Your task to perform on an android device: Go to settings Image 0: 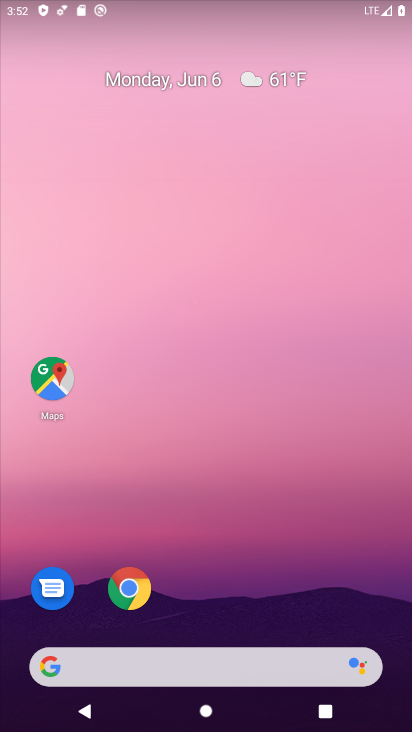
Step 0: click (186, 192)
Your task to perform on an android device: Go to settings Image 1: 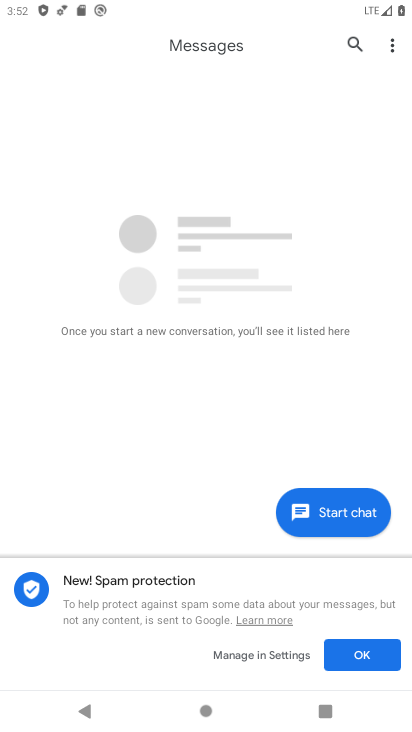
Step 1: press back button
Your task to perform on an android device: Go to settings Image 2: 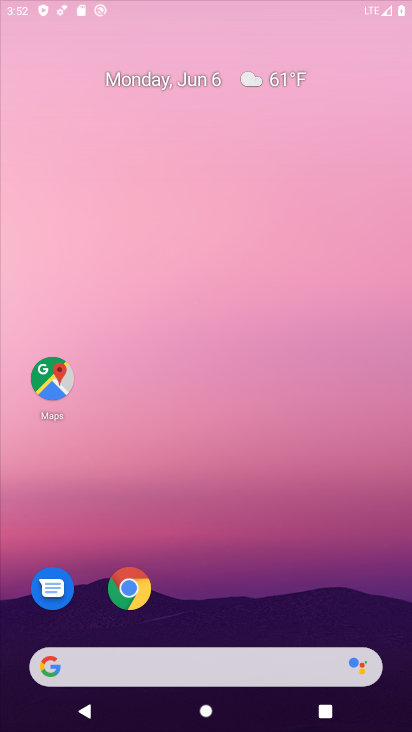
Step 2: drag from (270, 673) to (227, 21)
Your task to perform on an android device: Go to settings Image 3: 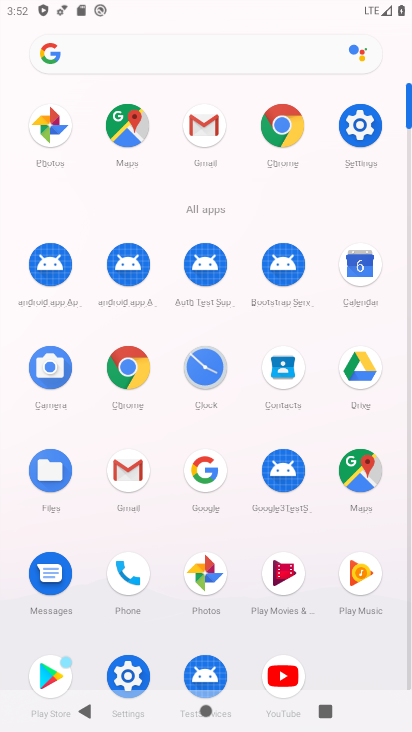
Step 3: click (357, 129)
Your task to perform on an android device: Go to settings Image 4: 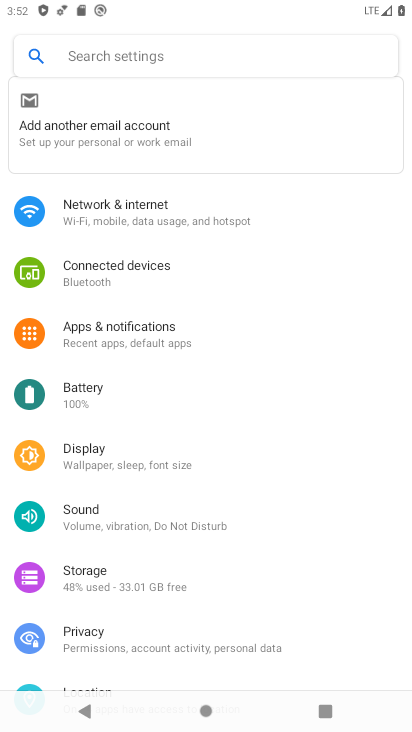
Step 4: press back button
Your task to perform on an android device: Go to settings Image 5: 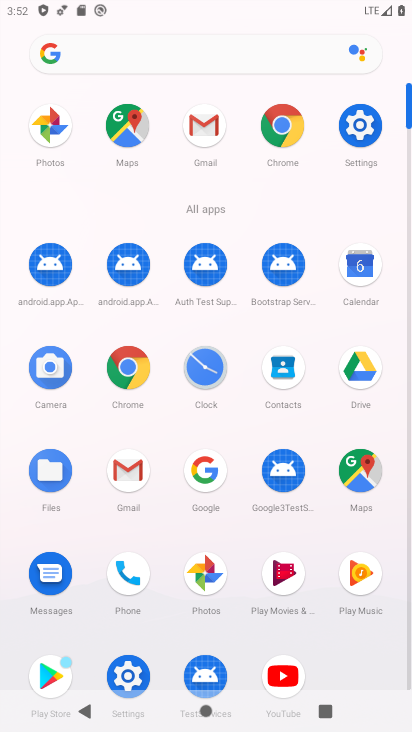
Step 5: press home button
Your task to perform on an android device: Go to settings Image 6: 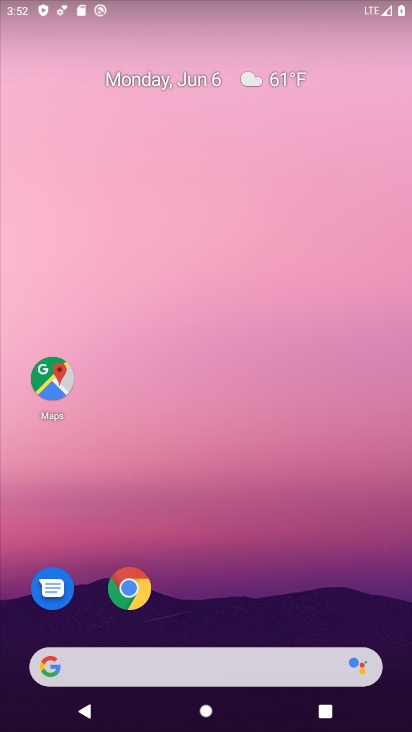
Step 6: drag from (365, 674) to (217, 0)
Your task to perform on an android device: Go to settings Image 7: 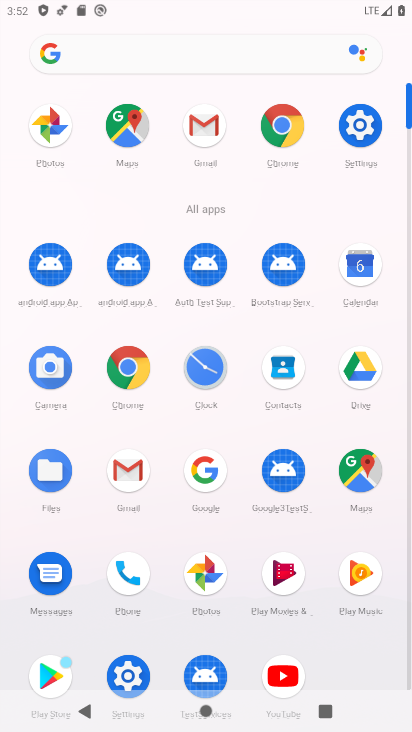
Step 7: click (370, 130)
Your task to perform on an android device: Go to settings Image 8: 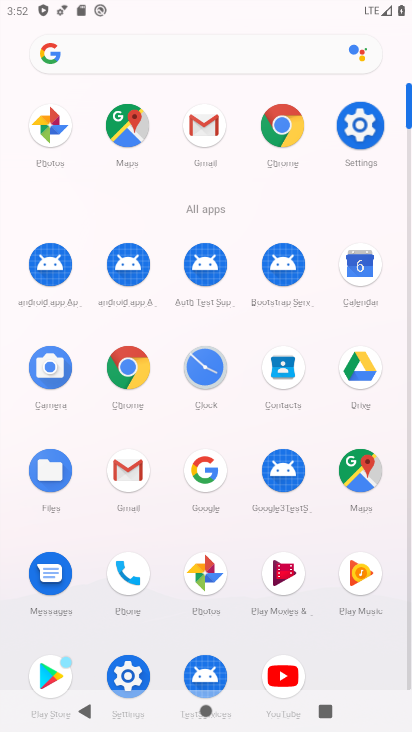
Step 8: click (365, 129)
Your task to perform on an android device: Go to settings Image 9: 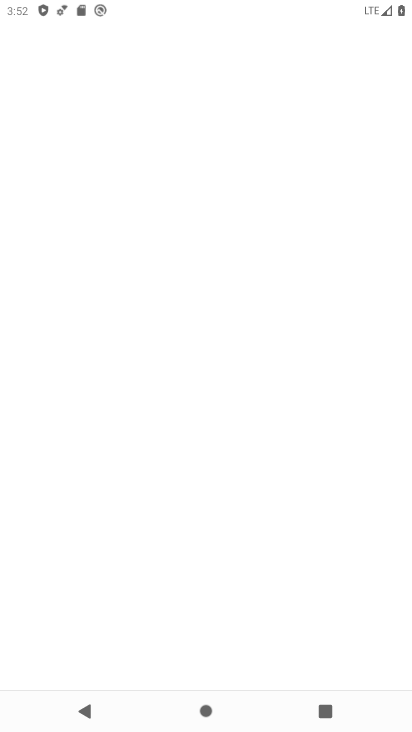
Step 9: click (364, 129)
Your task to perform on an android device: Go to settings Image 10: 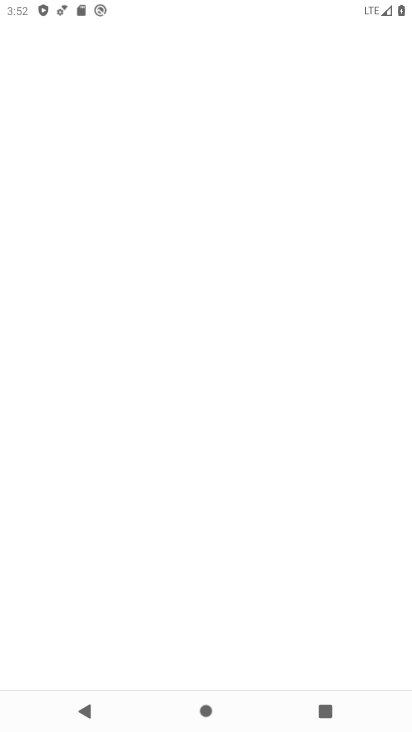
Step 10: click (353, 129)
Your task to perform on an android device: Go to settings Image 11: 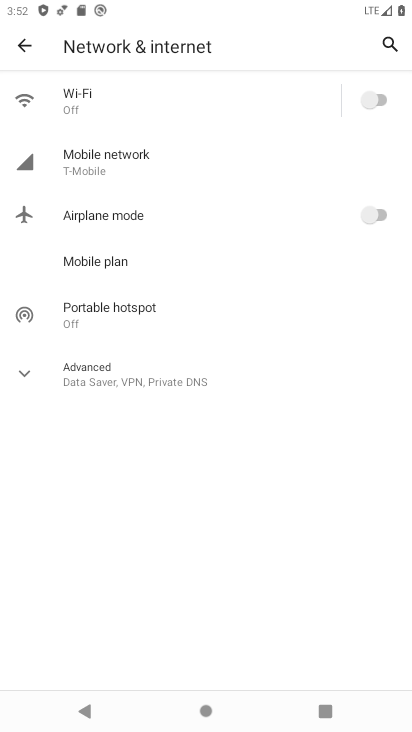
Step 11: task complete